Your task to perform on an android device: remove spam from my inbox in the gmail app Image 0: 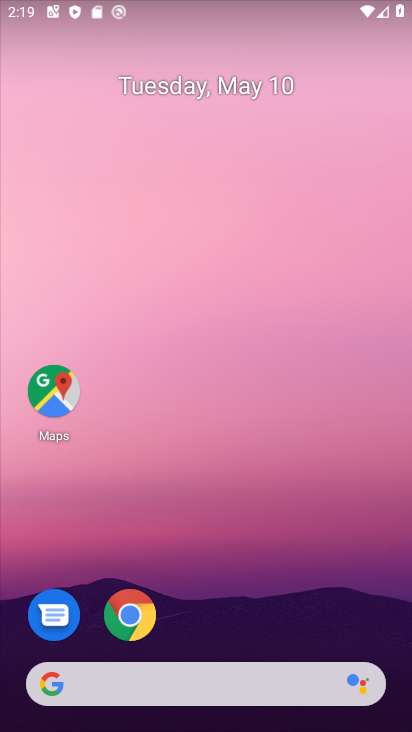
Step 0: drag from (253, 627) to (271, 162)
Your task to perform on an android device: remove spam from my inbox in the gmail app Image 1: 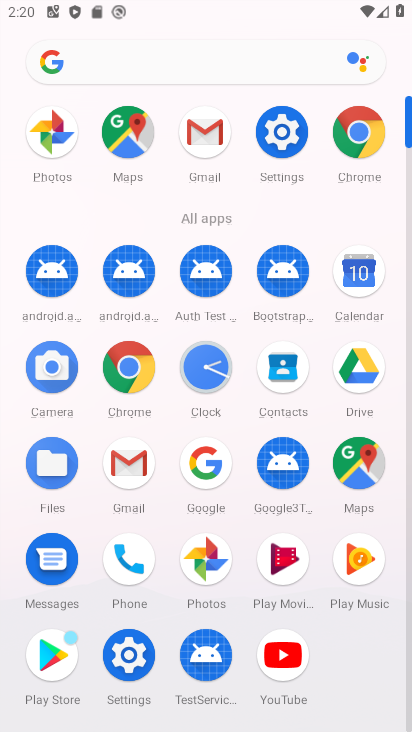
Step 1: click (196, 127)
Your task to perform on an android device: remove spam from my inbox in the gmail app Image 2: 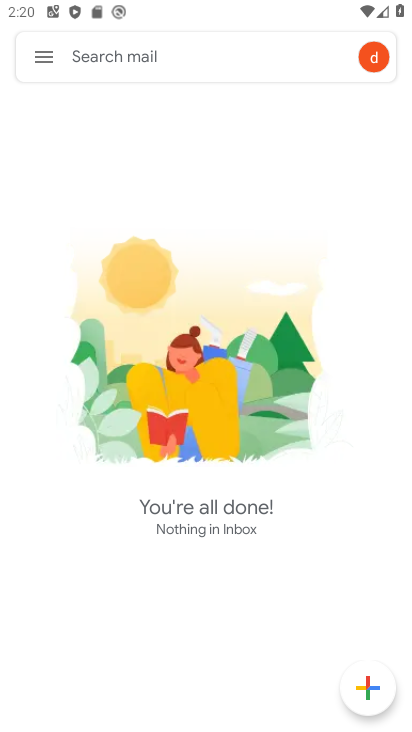
Step 2: click (48, 53)
Your task to perform on an android device: remove spam from my inbox in the gmail app Image 3: 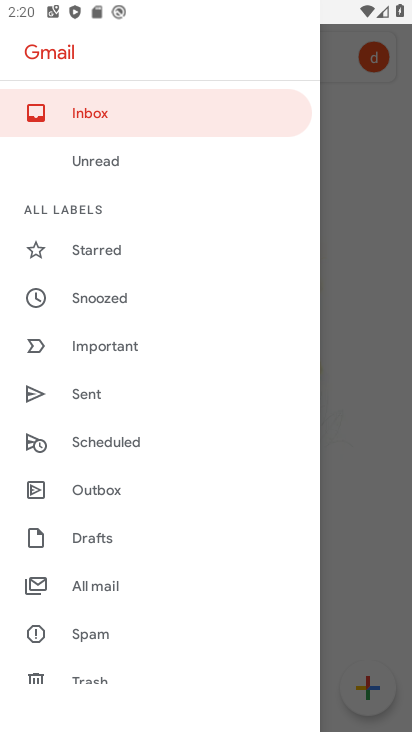
Step 3: click (168, 108)
Your task to perform on an android device: remove spam from my inbox in the gmail app Image 4: 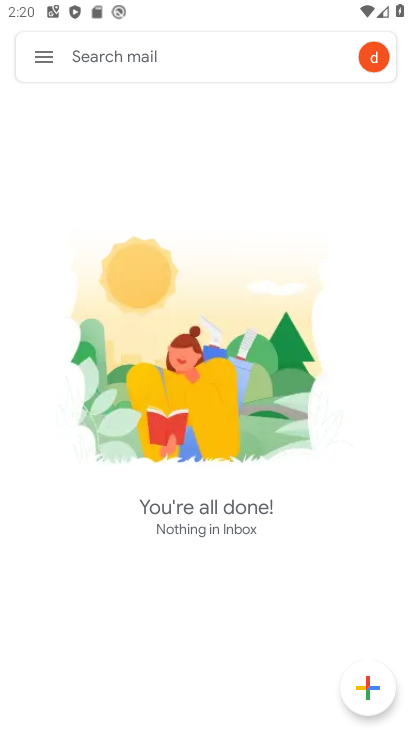
Step 4: task complete